Your task to perform on an android device: Do I have any events tomorrow? Image 0: 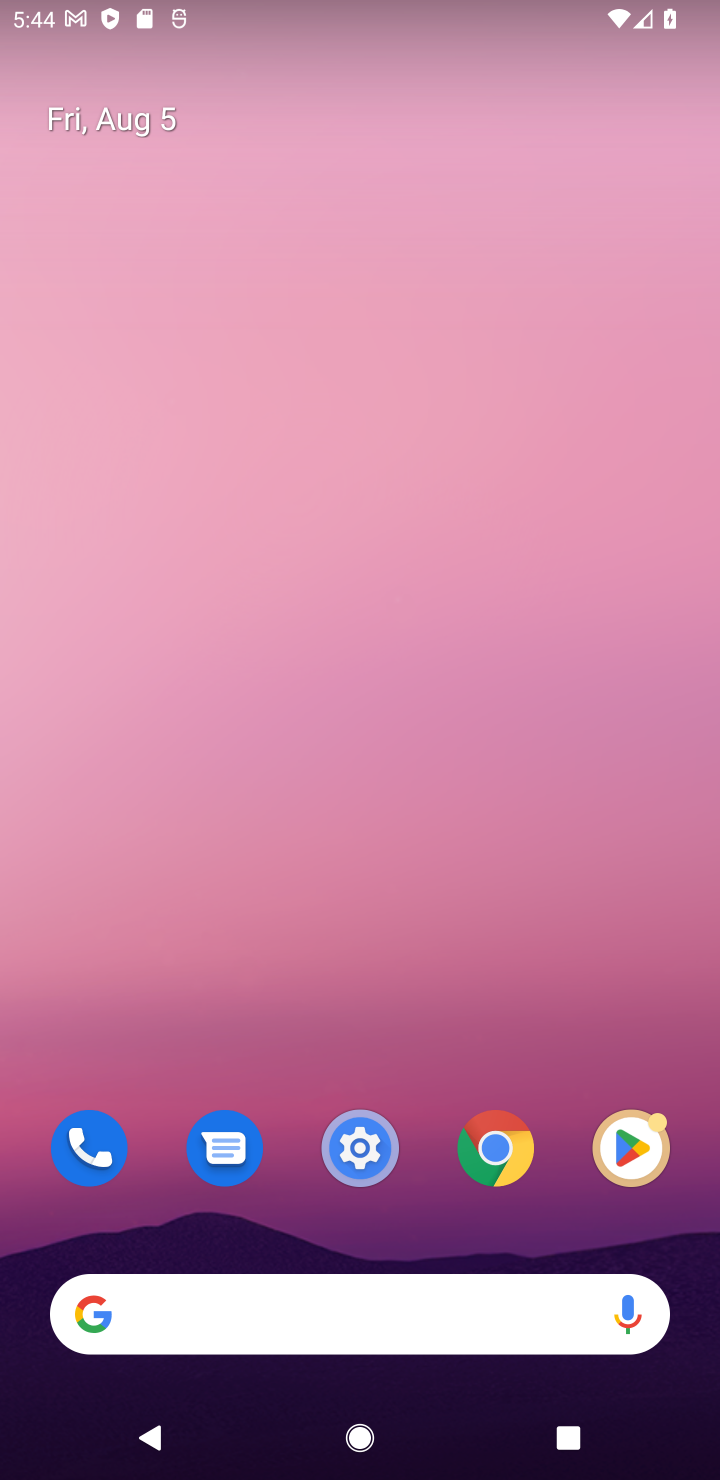
Step 0: drag from (552, 1010) to (490, 66)
Your task to perform on an android device: Do I have any events tomorrow? Image 1: 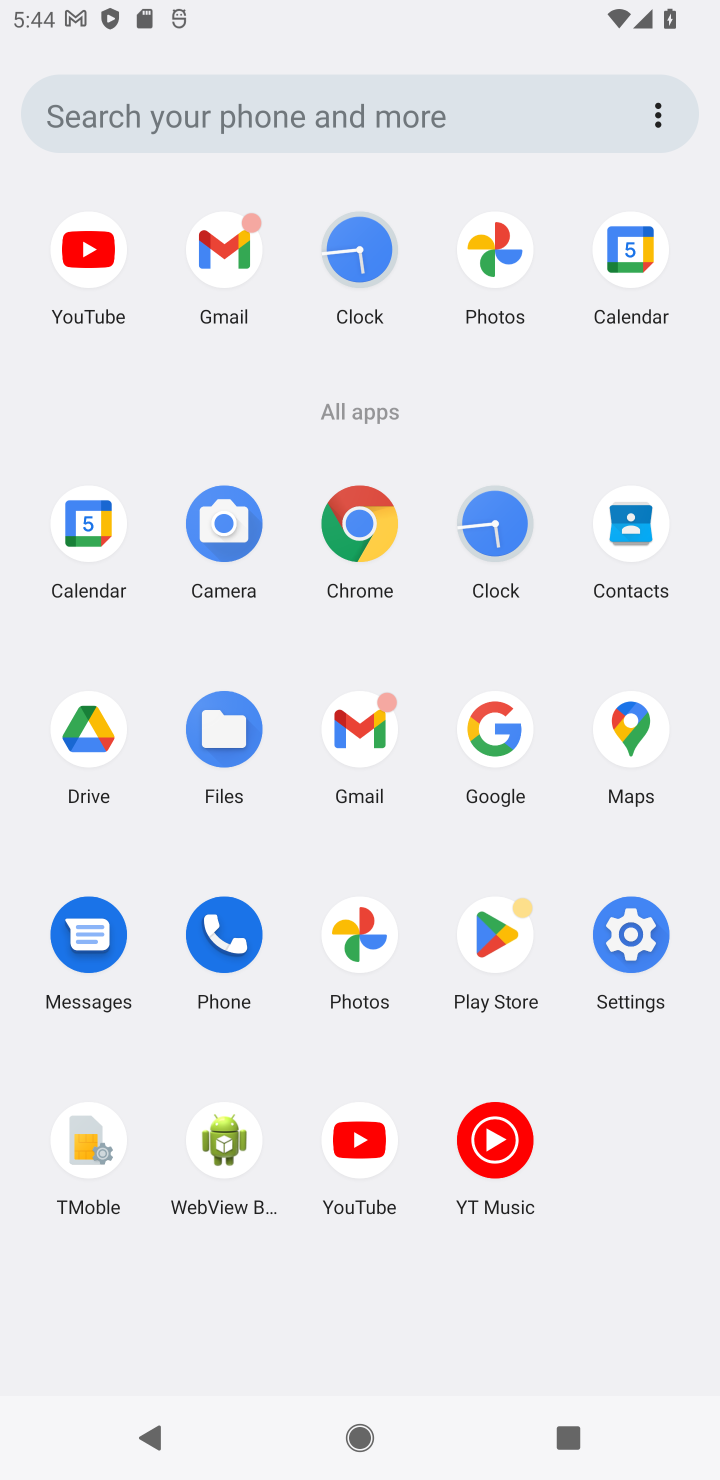
Step 1: click (627, 240)
Your task to perform on an android device: Do I have any events tomorrow? Image 2: 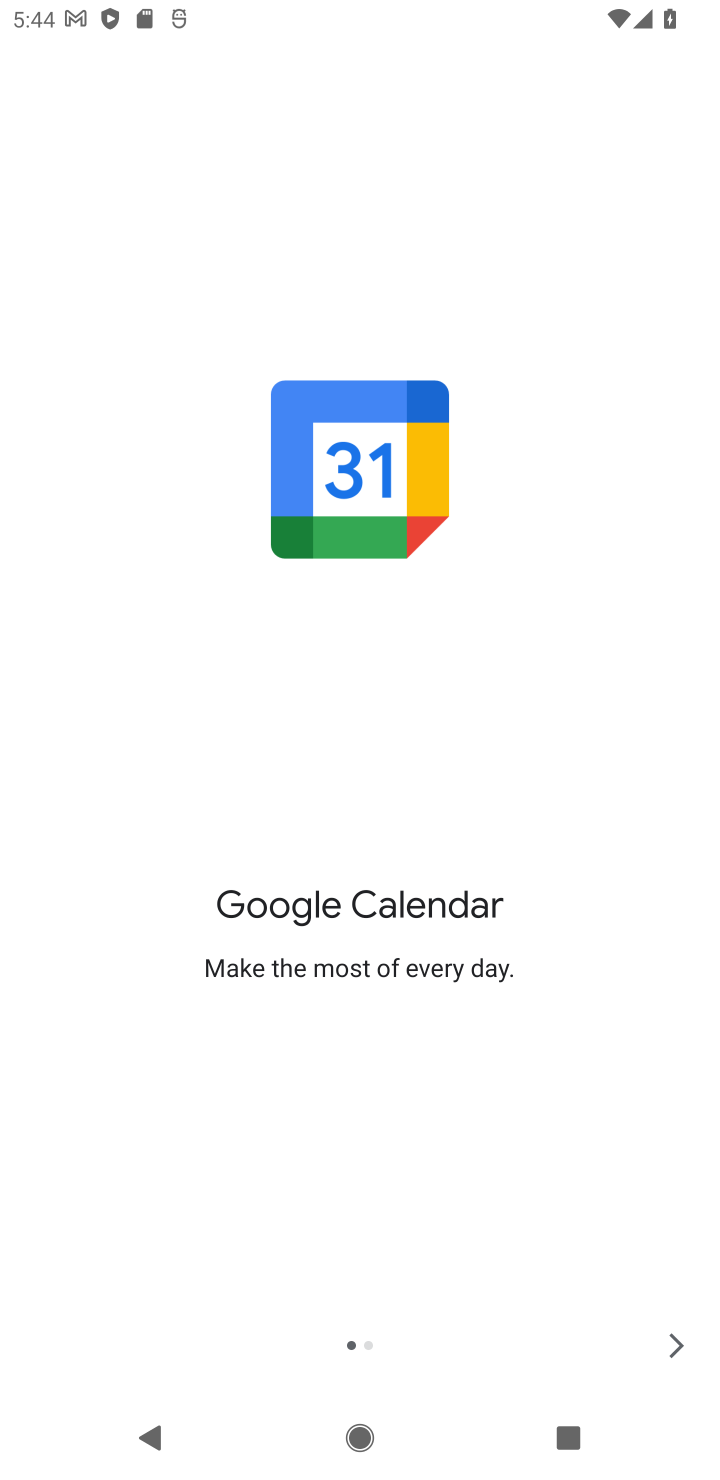
Step 2: click (676, 1351)
Your task to perform on an android device: Do I have any events tomorrow? Image 3: 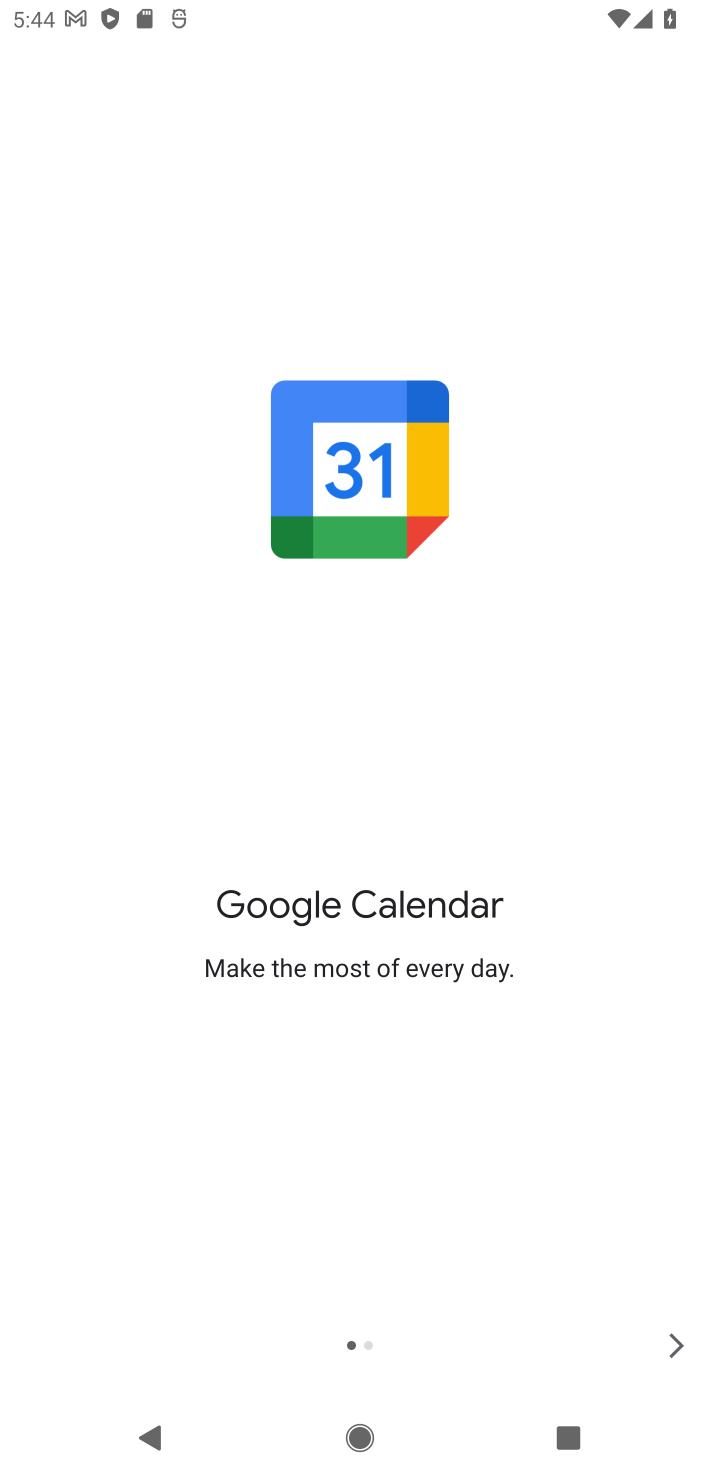
Step 3: click (676, 1351)
Your task to perform on an android device: Do I have any events tomorrow? Image 4: 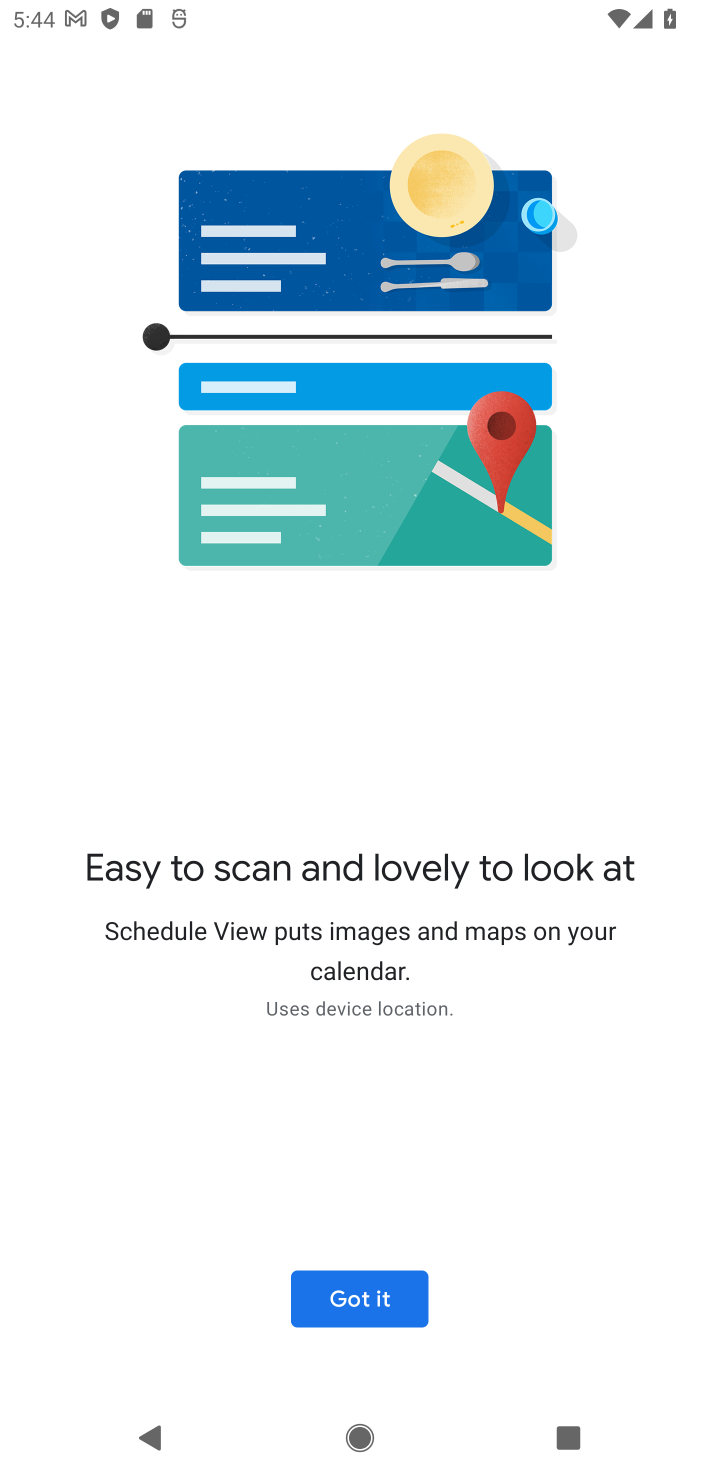
Step 4: click (362, 1290)
Your task to perform on an android device: Do I have any events tomorrow? Image 5: 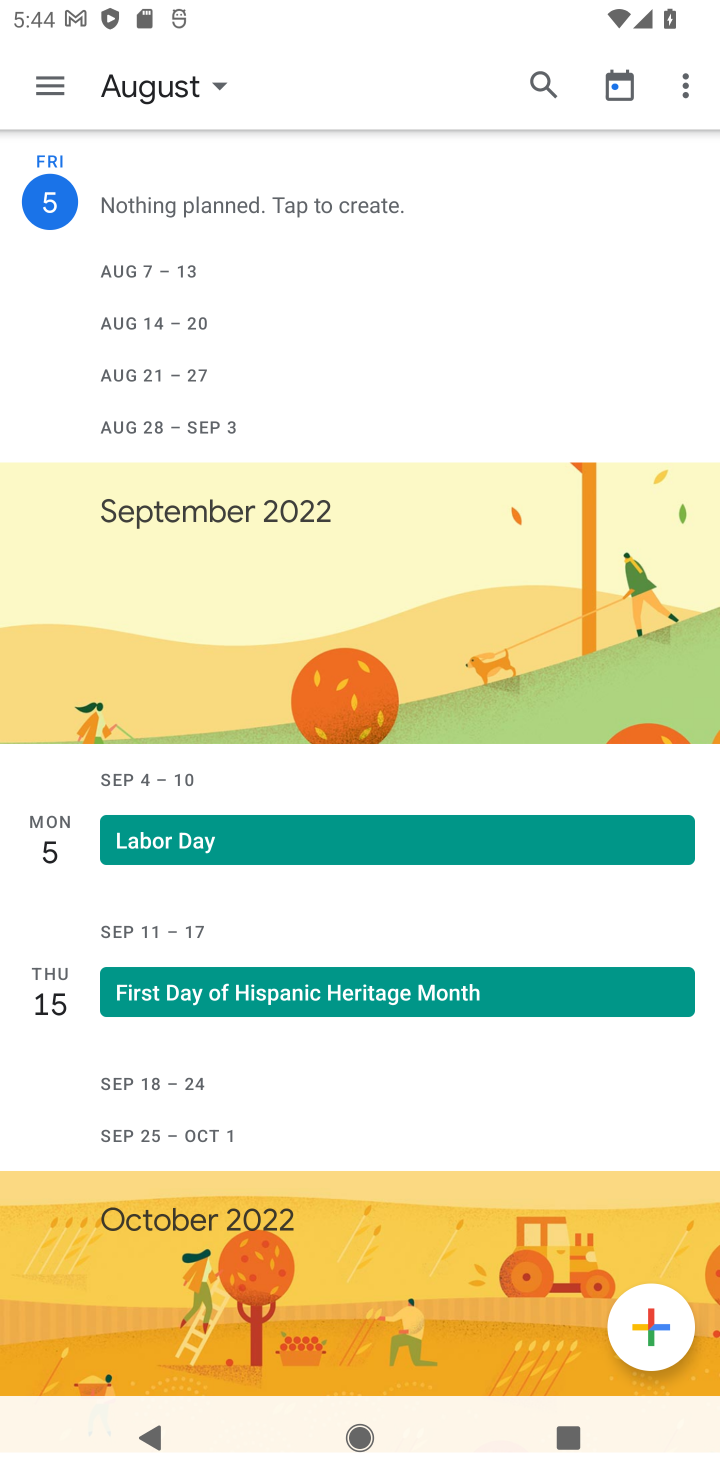
Step 5: click (67, 85)
Your task to perform on an android device: Do I have any events tomorrow? Image 6: 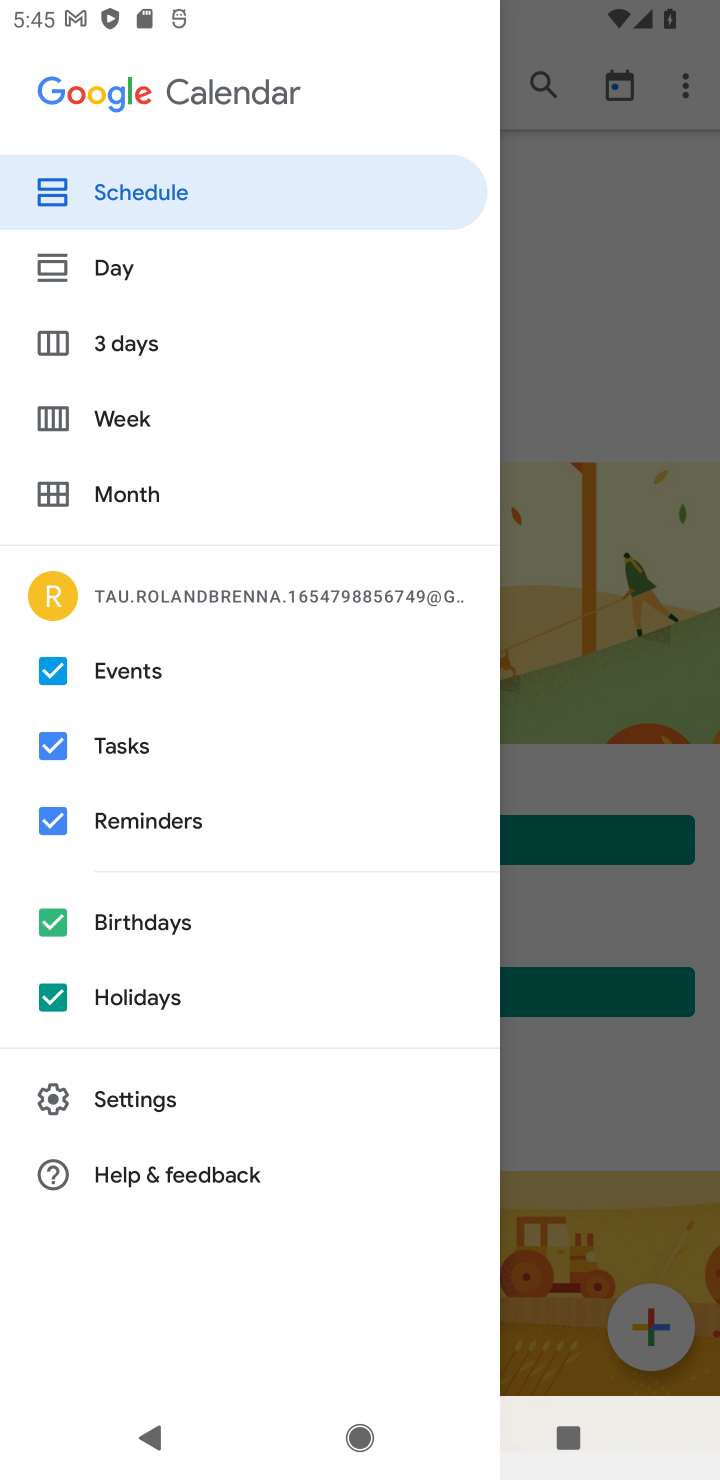
Step 6: click (117, 275)
Your task to perform on an android device: Do I have any events tomorrow? Image 7: 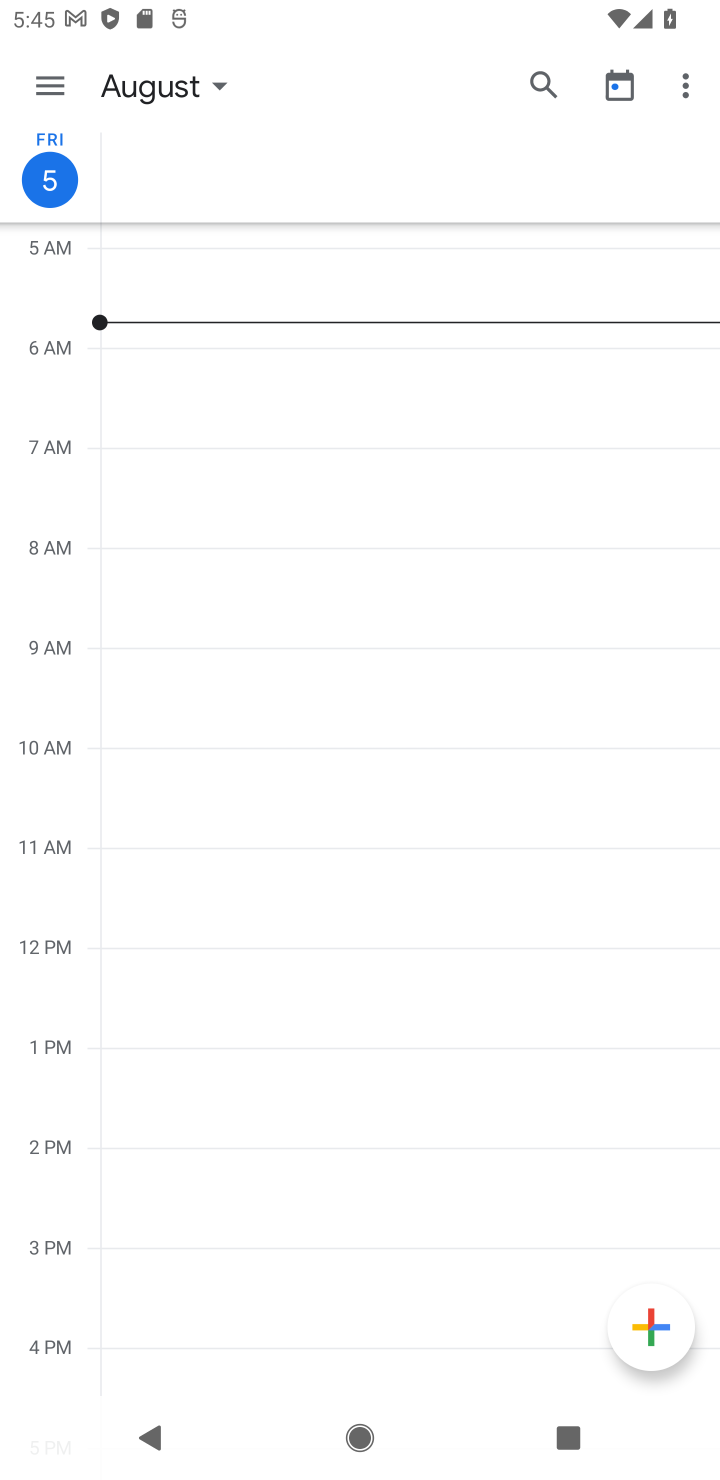
Step 7: click (212, 84)
Your task to perform on an android device: Do I have any events tomorrow? Image 8: 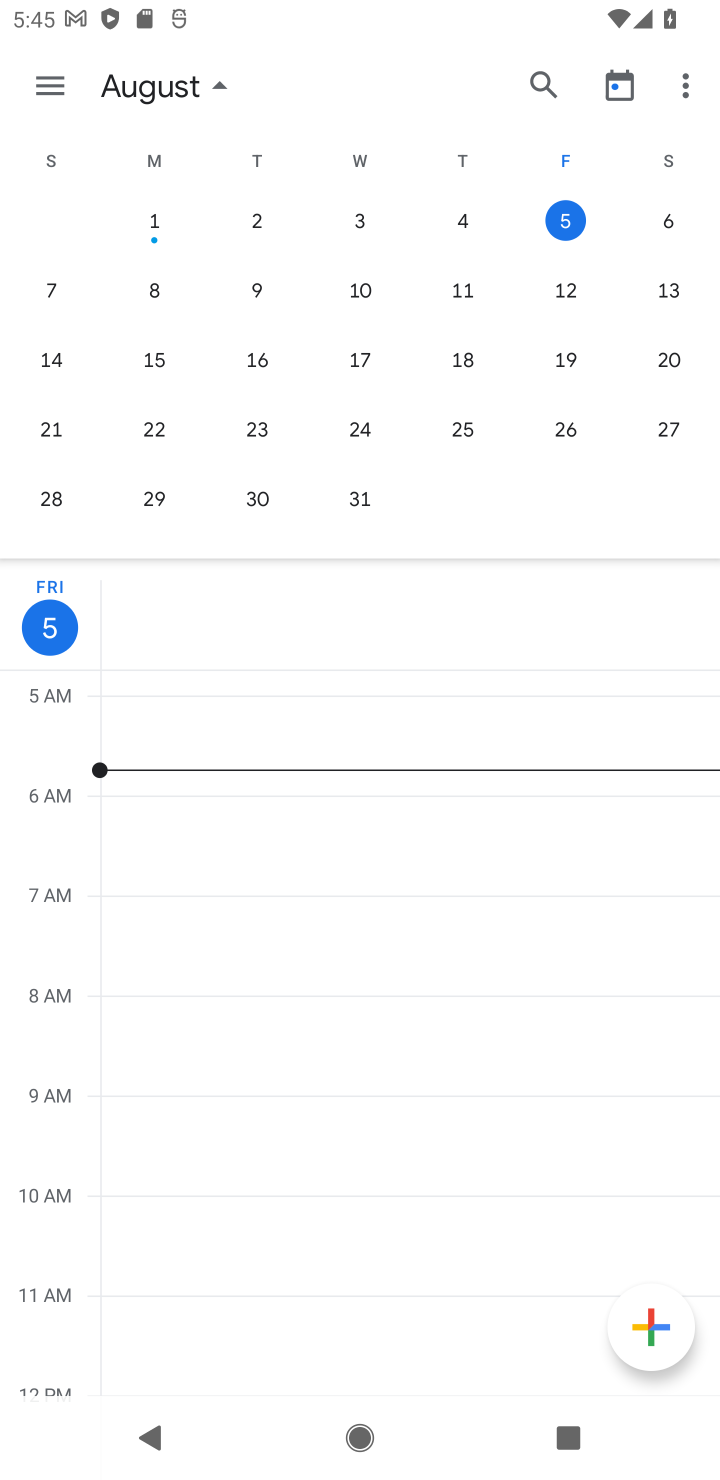
Step 8: click (673, 215)
Your task to perform on an android device: Do I have any events tomorrow? Image 9: 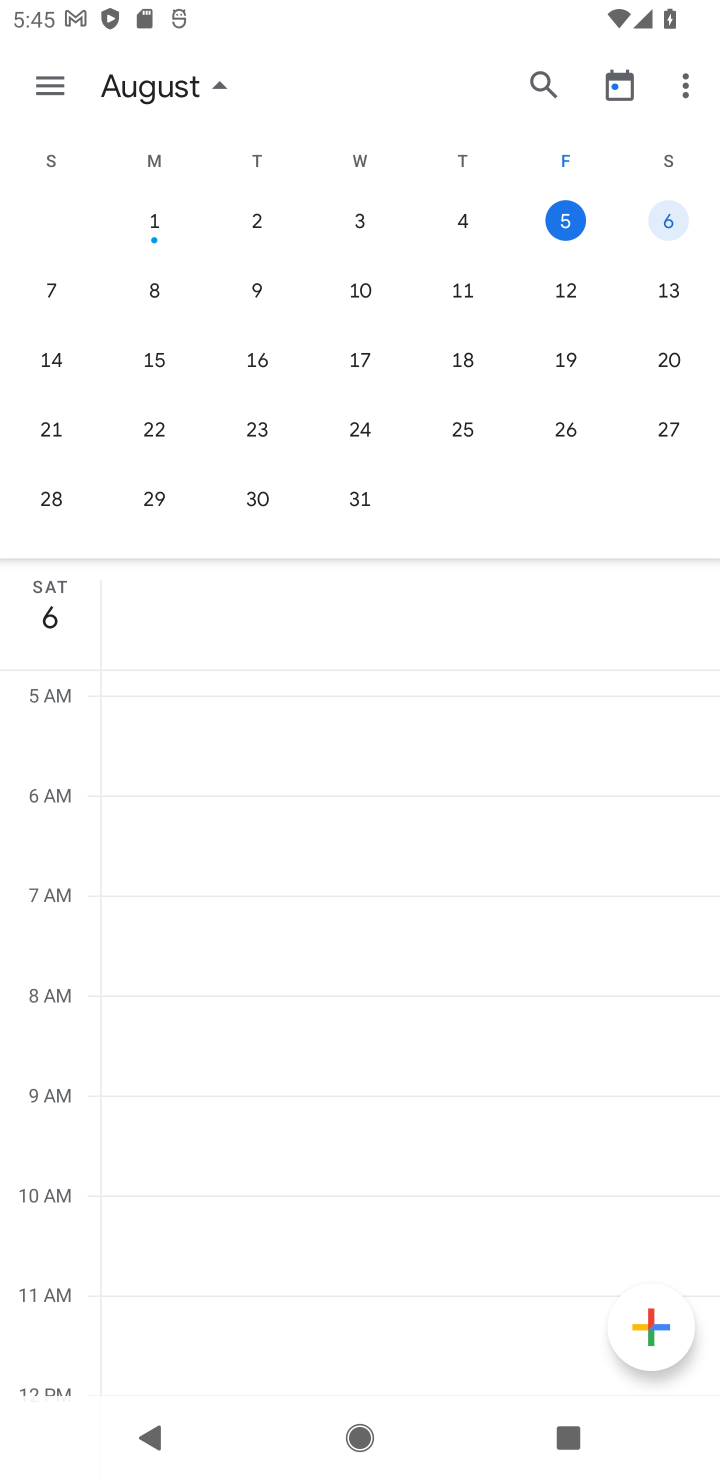
Step 9: click (665, 219)
Your task to perform on an android device: Do I have any events tomorrow? Image 10: 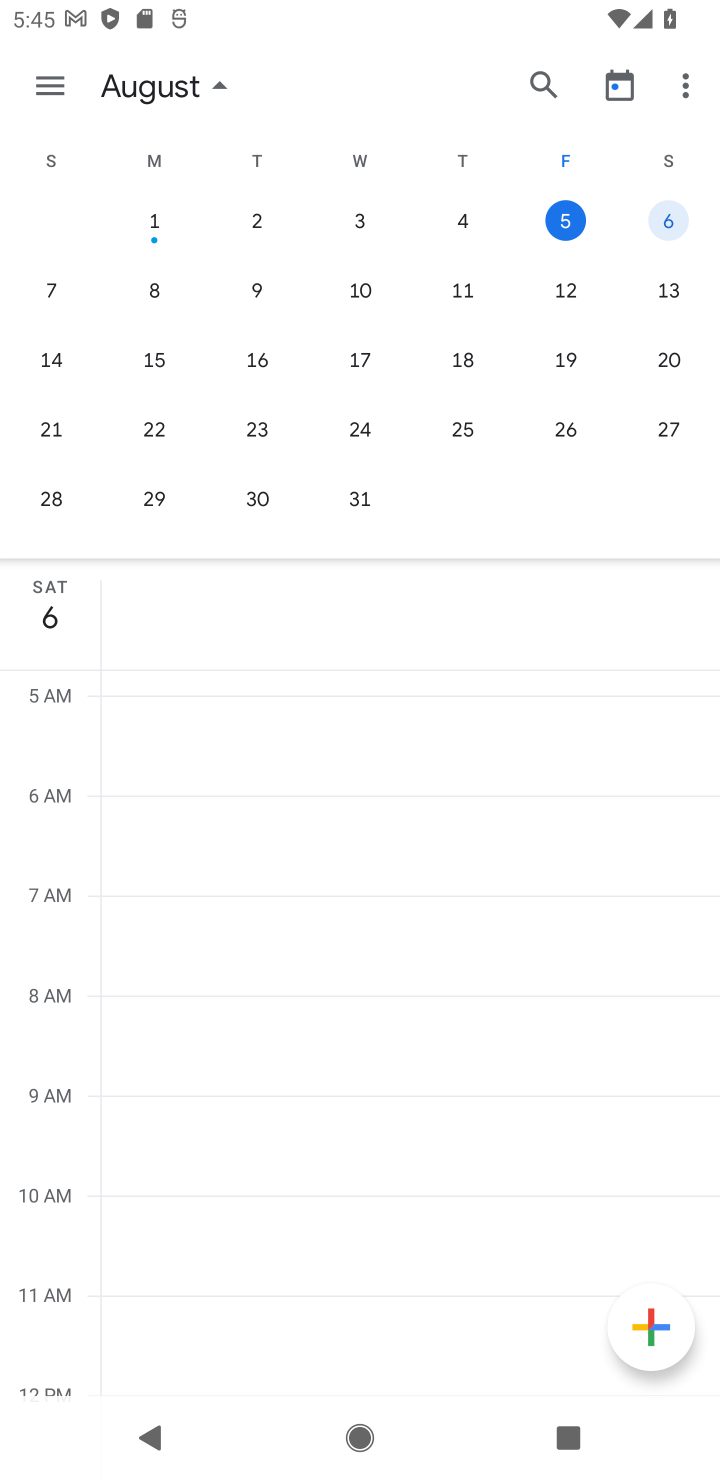
Step 10: task complete